Your task to perform on an android device: choose inbox layout in the gmail app Image 0: 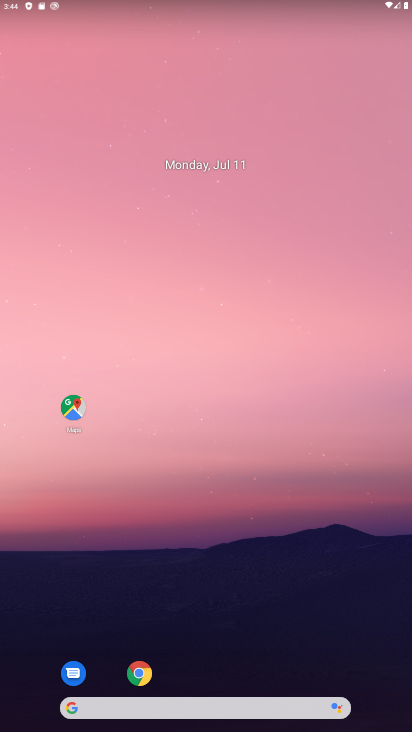
Step 0: drag from (206, 654) to (169, 109)
Your task to perform on an android device: choose inbox layout in the gmail app Image 1: 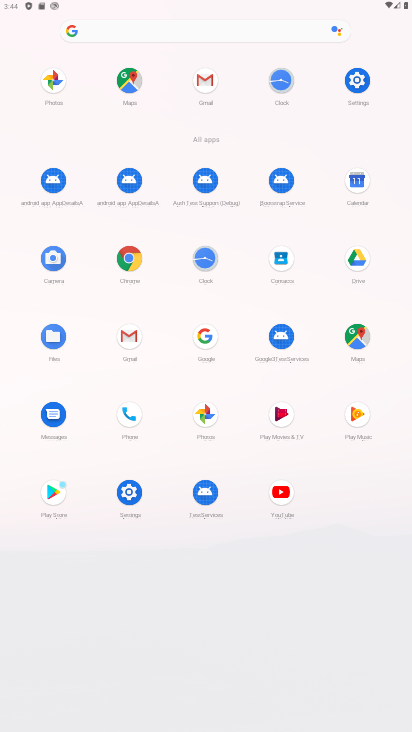
Step 1: click (129, 333)
Your task to perform on an android device: choose inbox layout in the gmail app Image 2: 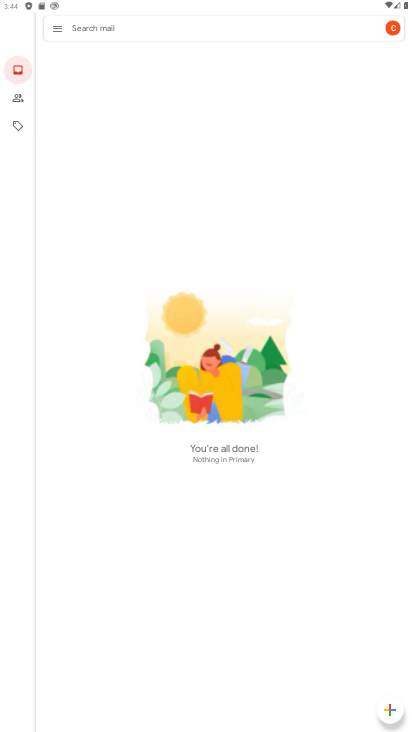
Step 2: click (53, 27)
Your task to perform on an android device: choose inbox layout in the gmail app Image 3: 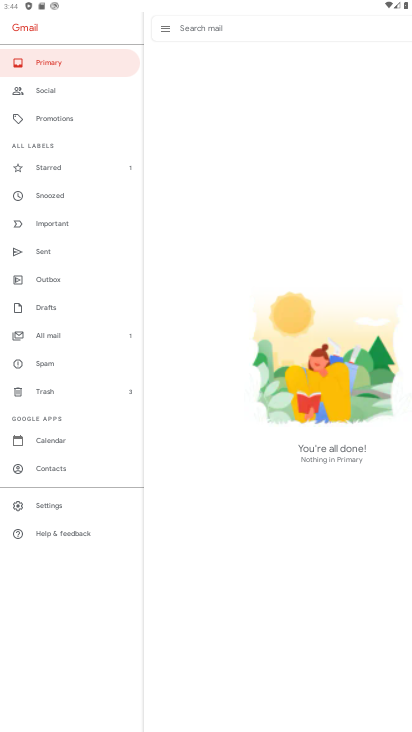
Step 3: click (43, 505)
Your task to perform on an android device: choose inbox layout in the gmail app Image 4: 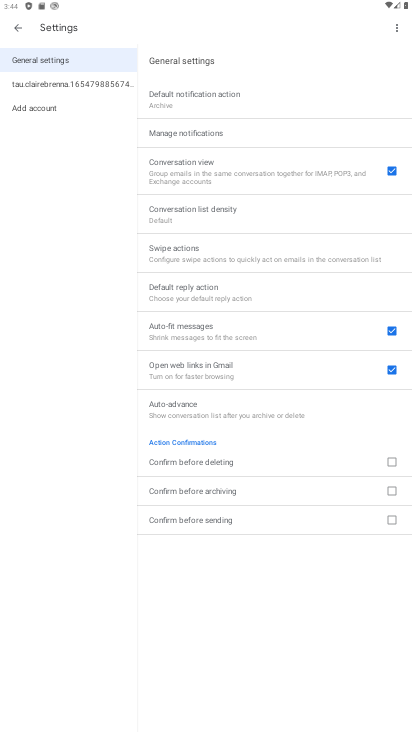
Step 4: click (23, 81)
Your task to perform on an android device: choose inbox layout in the gmail app Image 5: 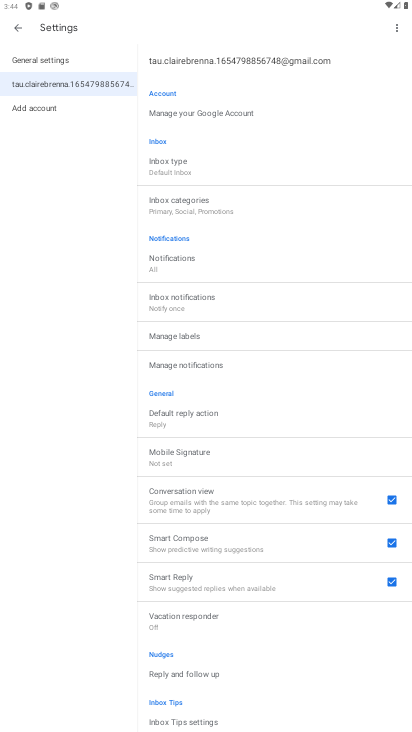
Step 5: click (184, 162)
Your task to perform on an android device: choose inbox layout in the gmail app Image 6: 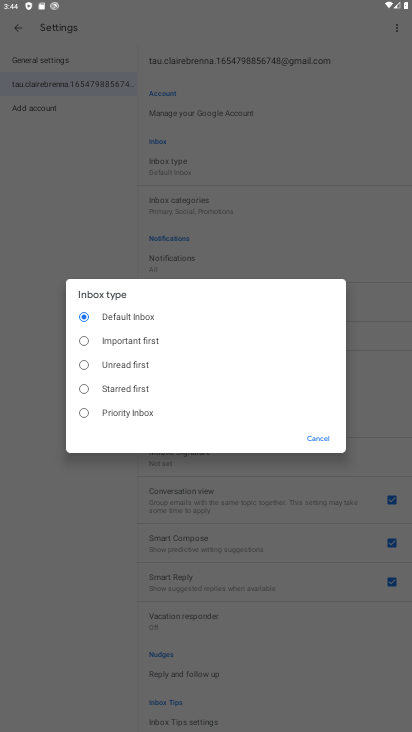
Step 6: click (112, 391)
Your task to perform on an android device: choose inbox layout in the gmail app Image 7: 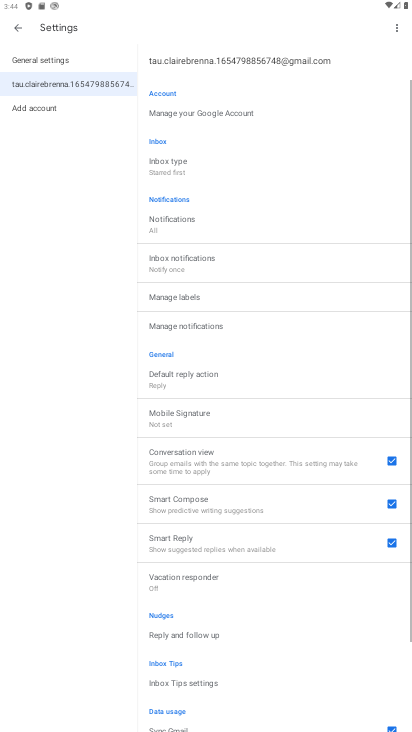
Step 7: task complete